Your task to perform on an android device: What is the news today? Image 0: 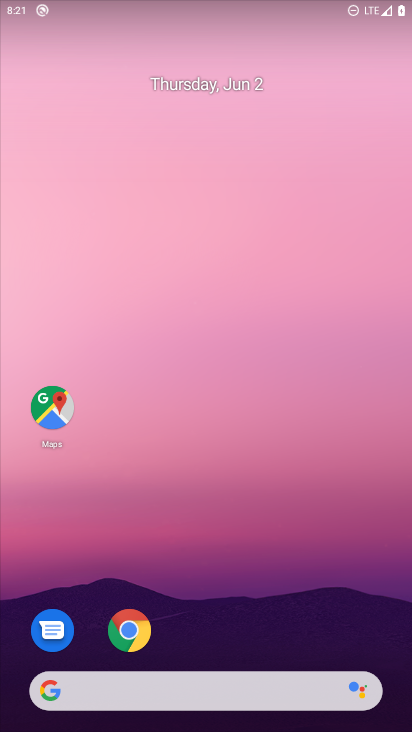
Step 0: click (132, 693)
Your task to perform on an android device: What is the news today? Image 1: 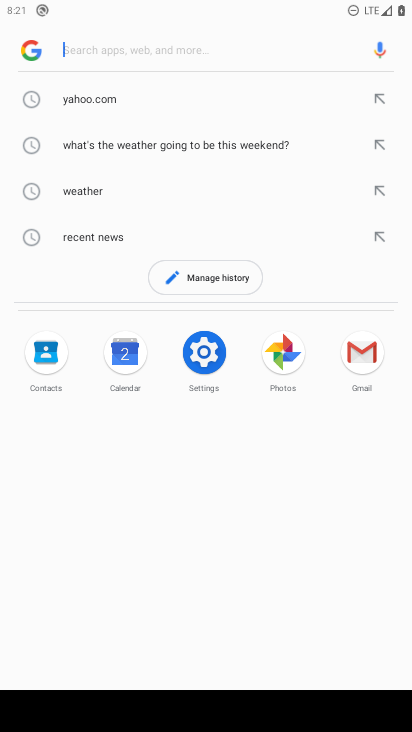
Step 1: click (90, 234)
Your task to perform on an android device: What is the news today? Image 2: 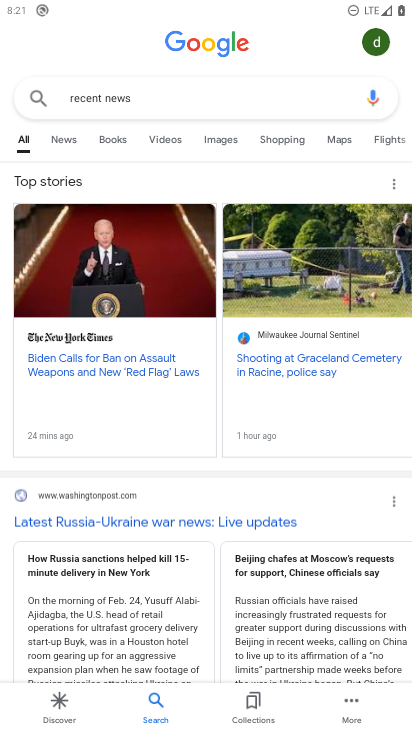
Step 2: task complete